Your task to perform on an android device: What's the weather going to be tomorrow? Image 0: 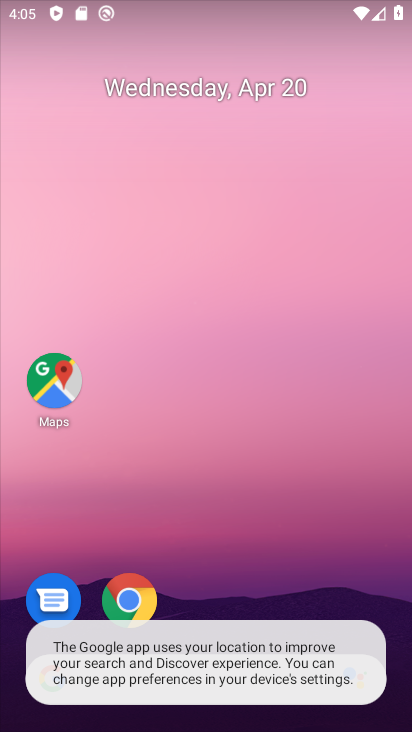
Step 0: drag from (25, 464) to (408, 443)
Your task to perform on an android device: What's the weather going to be tomorrow? Image 1: 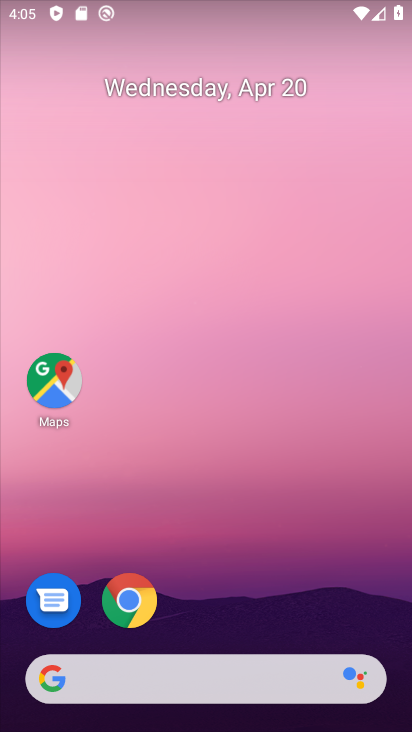
Step 1: drag from (2, 235) to (393, 232)
Your task to perform on an android device: What's the weather going to be tomorrow? Image 2: 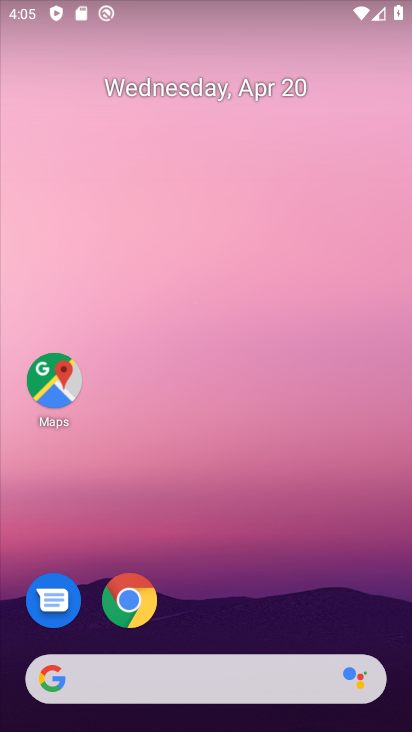
Step 2: click (209, 679)
Your task to perform on an android device: What's the weather going to be tomorrow? Image 3: 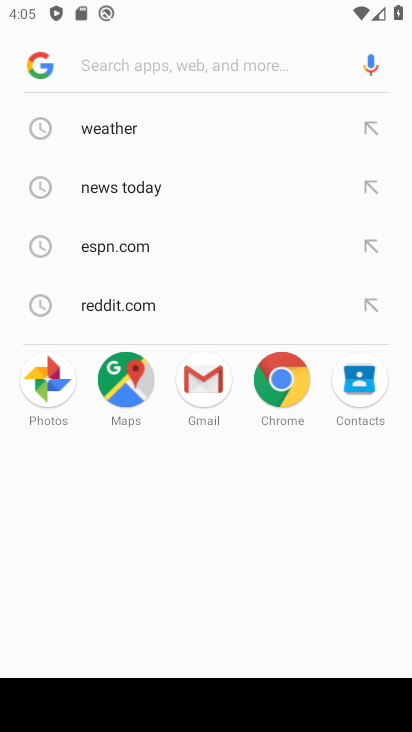
Step 3: click (159, 125)
Your task to perform on an android device: What's the weather going to be tomorrow? Image 4: 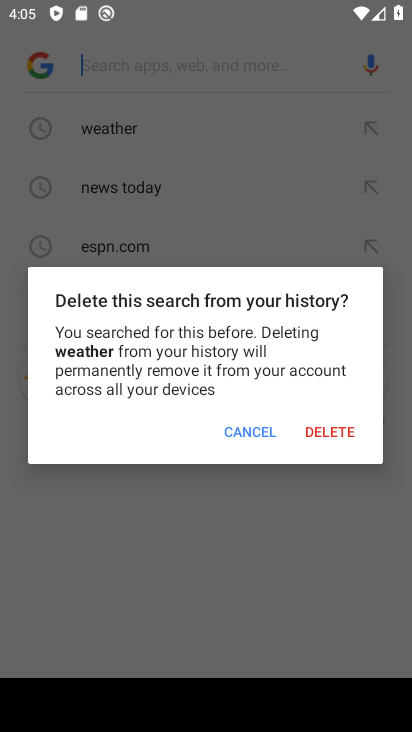
Step 4: click (262, 430)
Your task to perform on an android device: What's the weather going to be tomorrow? Image 5: 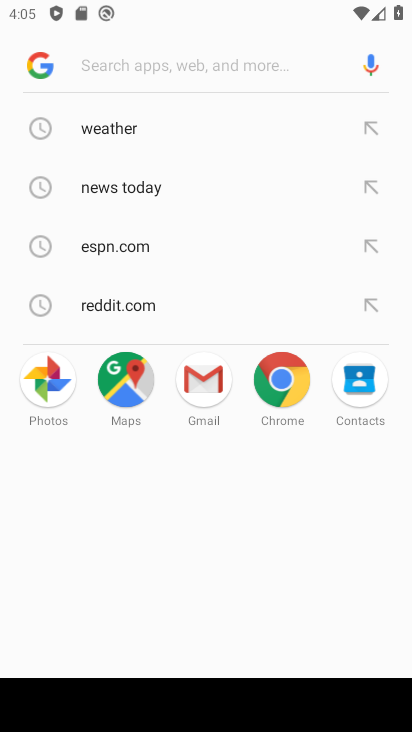
Step 5: click (292, 122)
Your task to perform on an android device: What's the weather going to be tomorrow? Image 6: 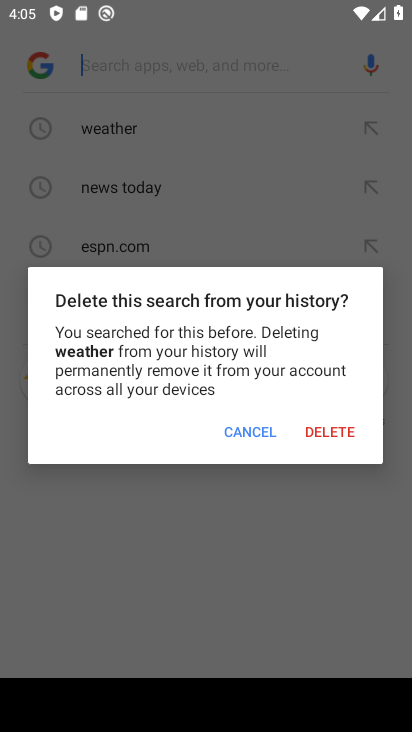
Step 6: click (261, 428)
Your task to perform on an android device: What's the weather going to be tomorrow? Image 7: 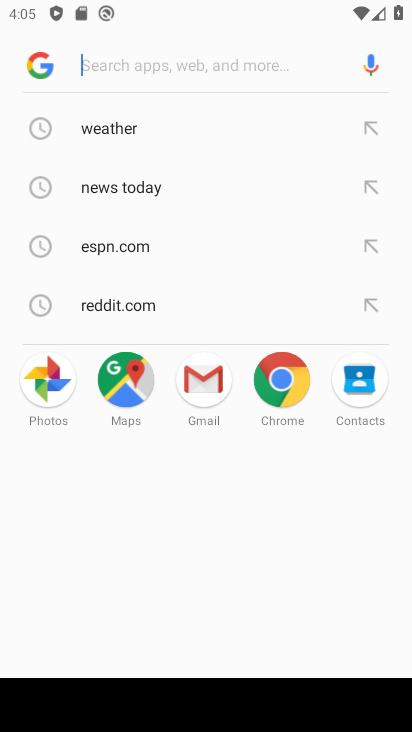
Step 7: click (173, 129)
Your task to perform on an android device: What's the weather going to be tomorrow? Image 8: 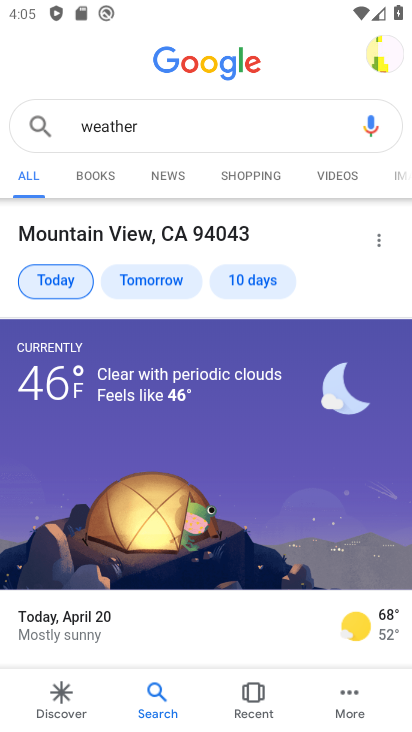
Step 8: click (169, 296)
Your task to perform on an android device: What's the weather going to be tomorrow? Image 9: 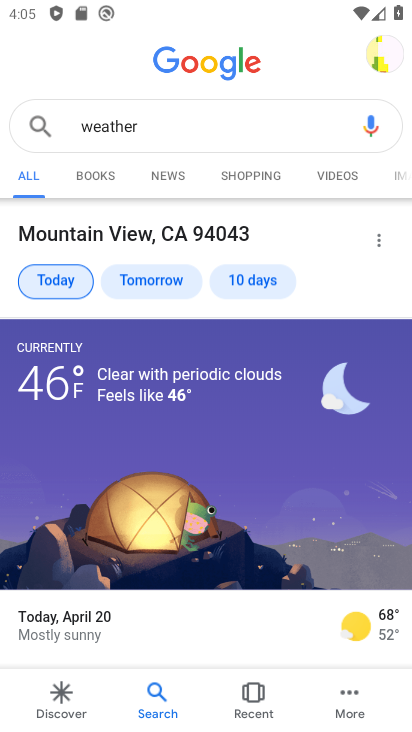
Step 9: click (171, 283)
Your task to perform on an android device: What's the weather going to be tomorrow? Image 10: 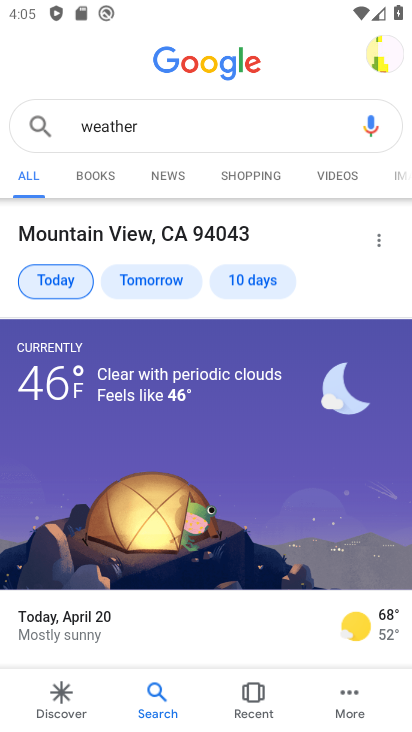
Step 10: click (213, 409)
Your task to perform on an android device: What's the weather going to be tomorrow? Image 11: 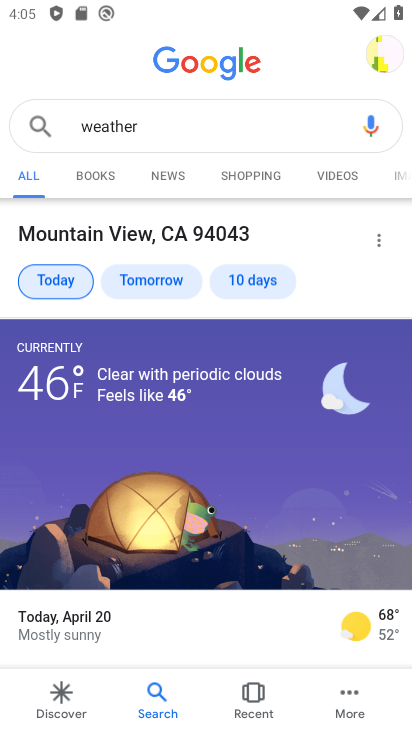
Step 11: drag from (272, 593) to (377, 258)
Your task to perform on an android device: What's the weather going to be tomorrow? Image 12: 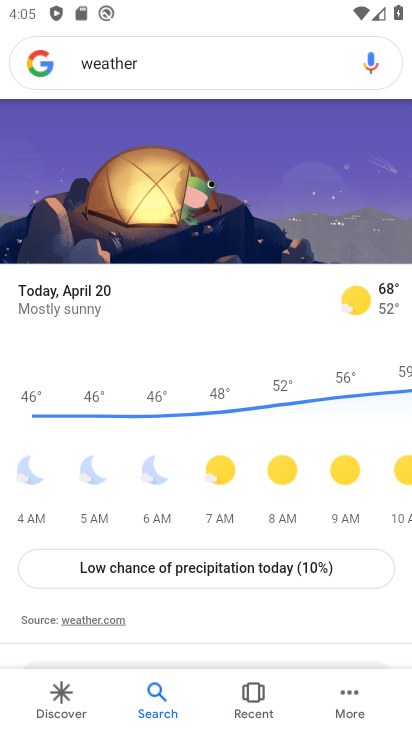
Step 12: drag from (208, 307) to (190, 640)
Your task to perform on an android device: What's the weather going to be tomorrow? Image 13: 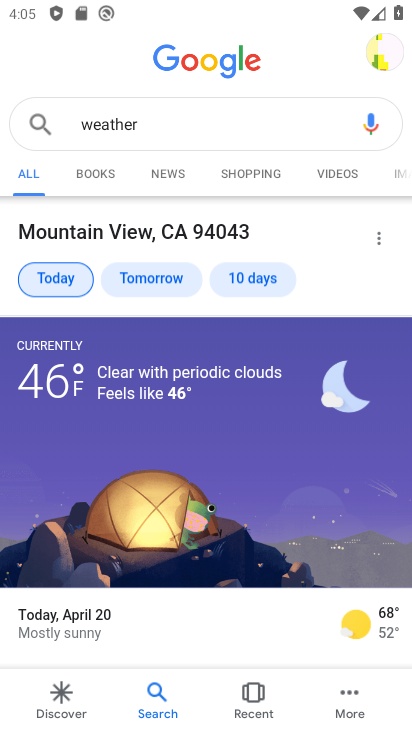
Step 13: click (171, 291)
Your task to perform on an android device: What's the weather going to be tomorrow? Image 14: 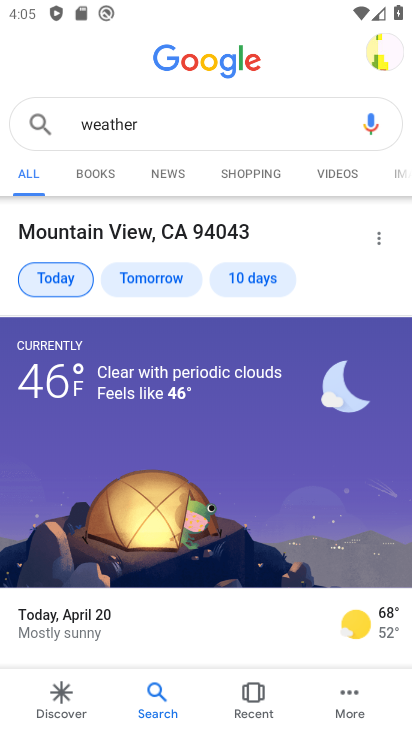
Step 14: click (235, 625)
Your task to perform on an android device: What's the weather going to be tomorrow? Image 15: 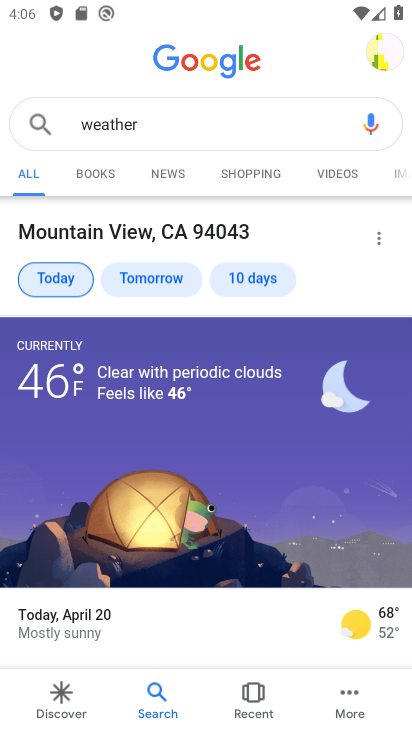
Step 15: click (329, 639)
Your task to perform on an android device: What's the weather going to be tomorrow? Image 16: 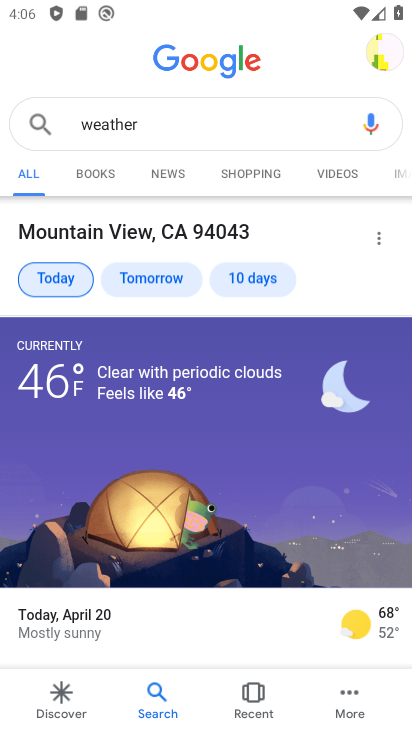
Step 16: drag from (239, 568) to (292, 236)
Your task to perform on an android device: What's the weather going to be tomorrow? Image 17: 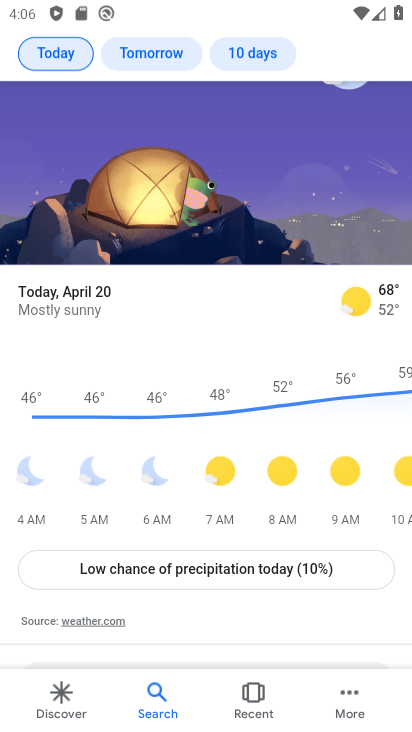
Step 17: click (242, 574)
Your task to perform on an android device: What's the weather going to be tomorrow? Image 18: 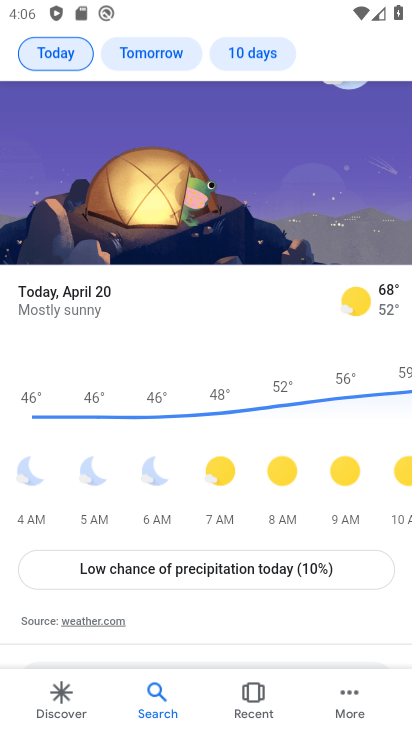
Step 18: click (294, 177)
Your task to perform on an android device: What's the weather going to be tomorrow? Image 19: 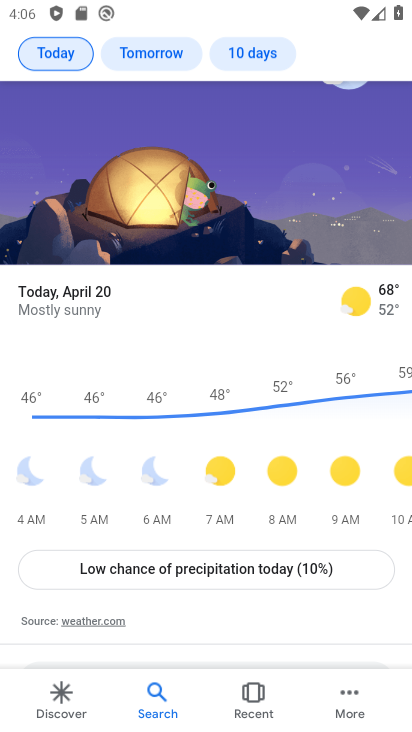
Step 19: click (291, 177)
Your task to perform on an android device: What's the weather going to be tomorrow? Image 20: 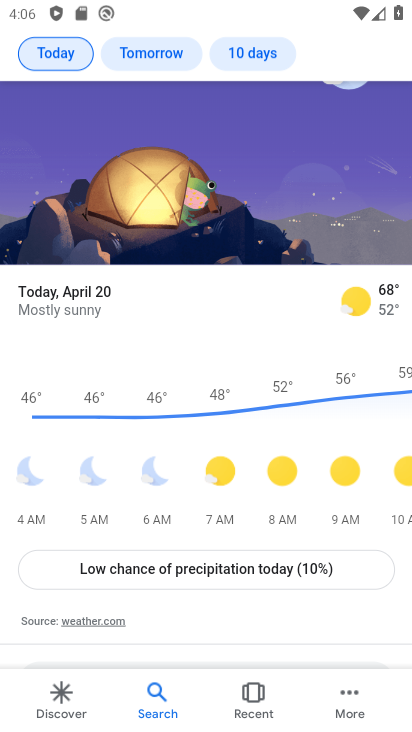
Step 20: click (169, 46)
Your task to perform on an android device: What's the weather going to be tomorrow? Image 21: 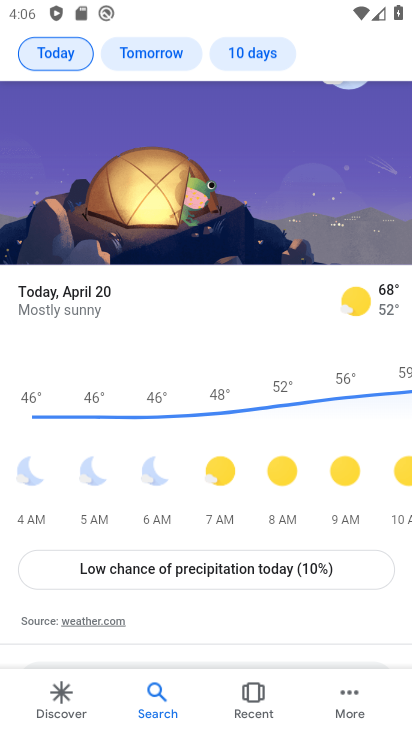
Step 21: click (170, 50)
Your task to perform on an android device: What's the weather going to be tomorrow? Image 22: 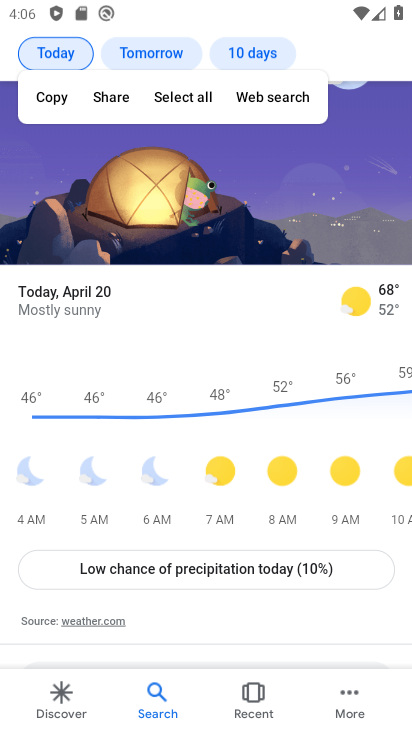
Step 22: click (171, 50)
Your task to perform on an android device: What's the weather going to be tomorrow? Image 23: 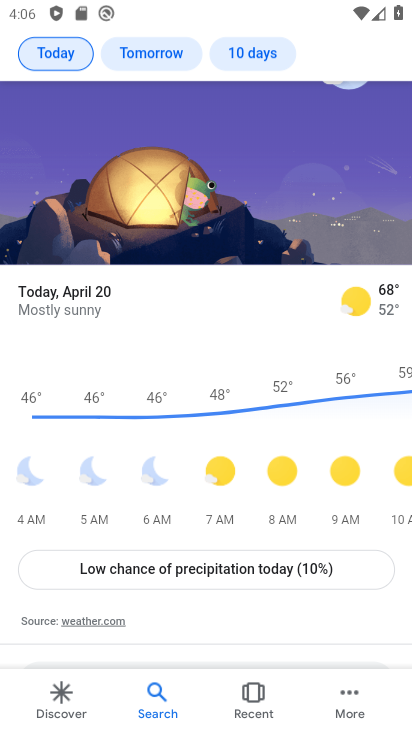
Step 23: click (168, 49)
Your task to perform on an android device: What's the weather going to be tomorrow? Image 24: 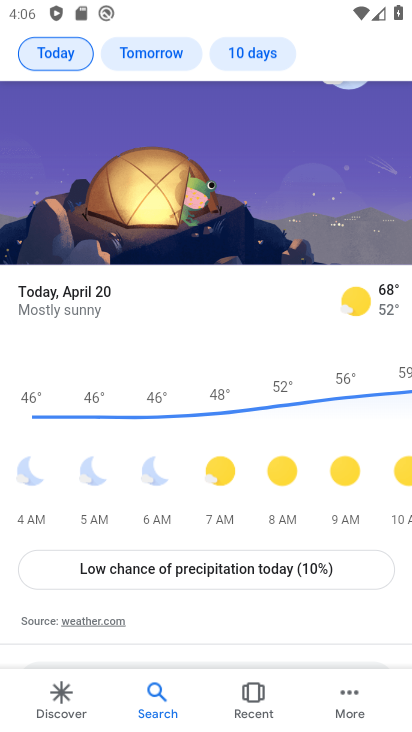
Step 24: click (160, 50)
Your task to perform on an android device: What's the weather going to be tomorrow? Image 25: 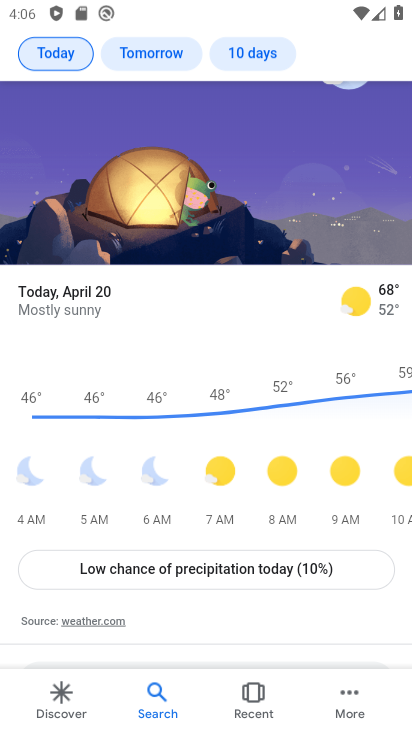
Step 25: click (157, 49)
Your task to perform on an android device: What's the weather going to be tomorrow? Image 26: 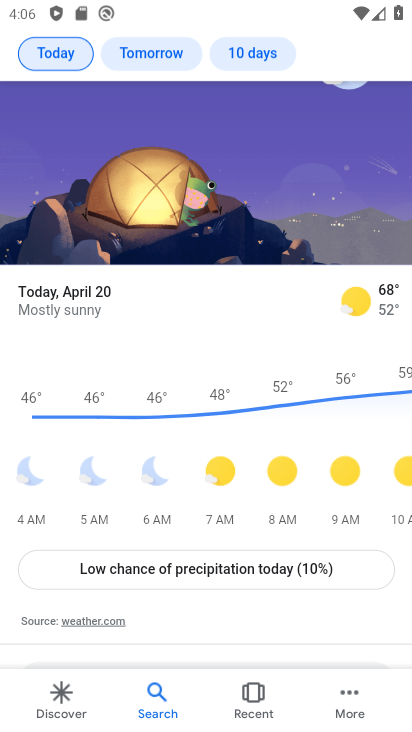
Step 26: click (157, 48)
Your task to perform on an android device: What's the weather going to be tomorrow? Image 27: 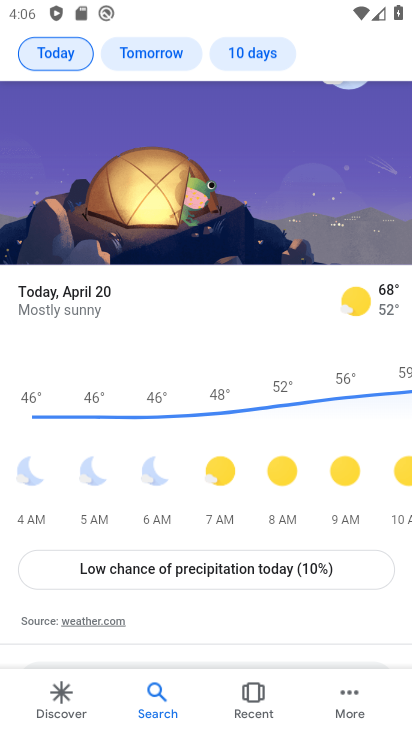
Step 27: click (157, 48)
Your task to perform on an android device: What's the weather going to be tomorrow? Image 28: 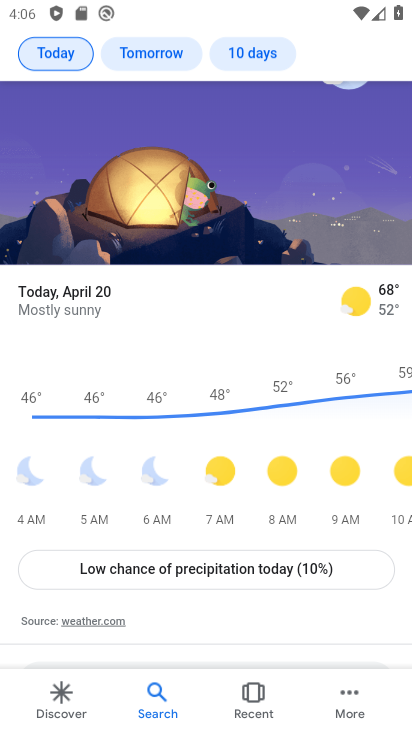
Step 28: click (157, 48)
Your task to perform on an android device: What's the weather going to be tomorrow? Image 29: 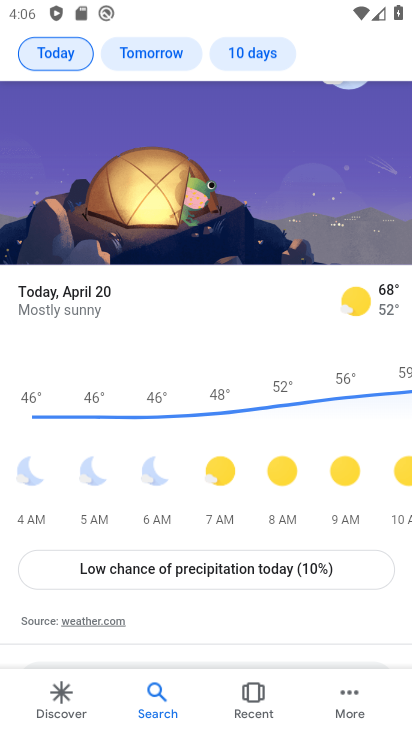
Step 29: click (214, 170)
Your task to perform on an android device: What's the weather going to be tomorrow? Image 30: 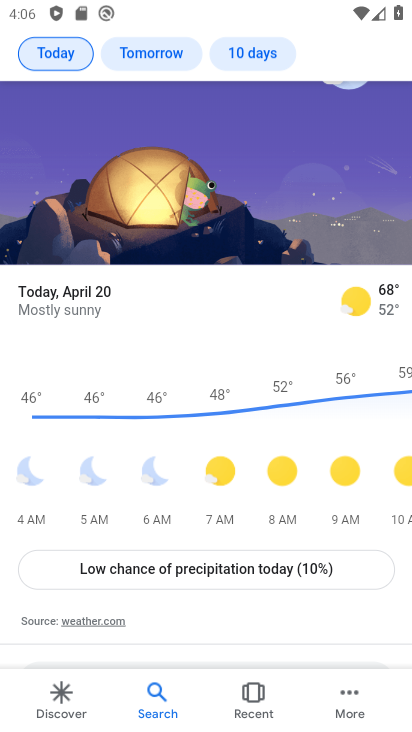
Step 30: click (195, 282)
Your task to perform on an android device: What's the weather going to be tomorrow? Image 31: 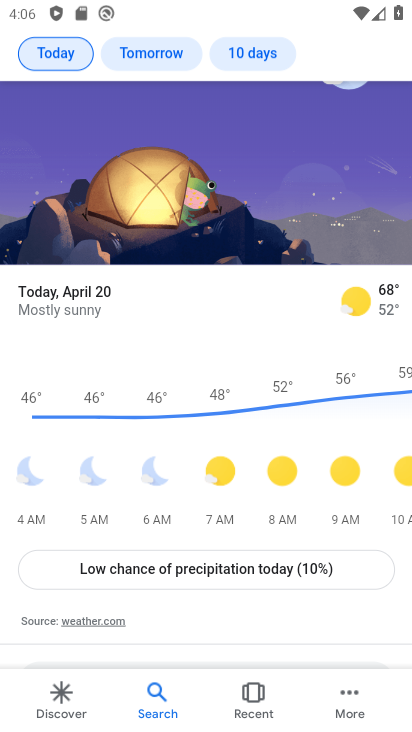
Step 31: task complete